Your task to perform on an android device: Go to Google maps Image 0: 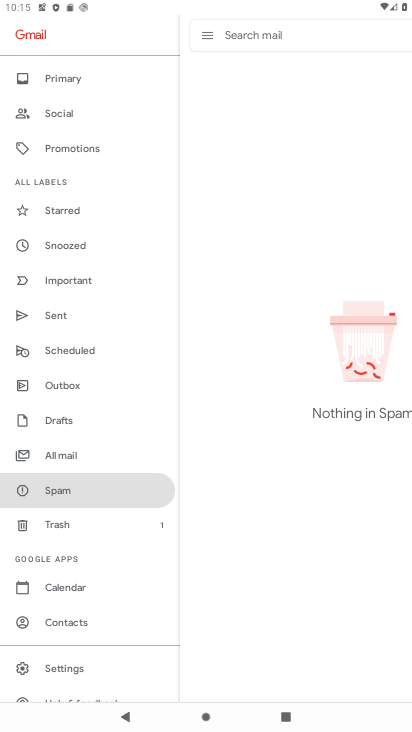
Step 0: press home button
Your task to perform on an android device: Go to Google maps Image 1: 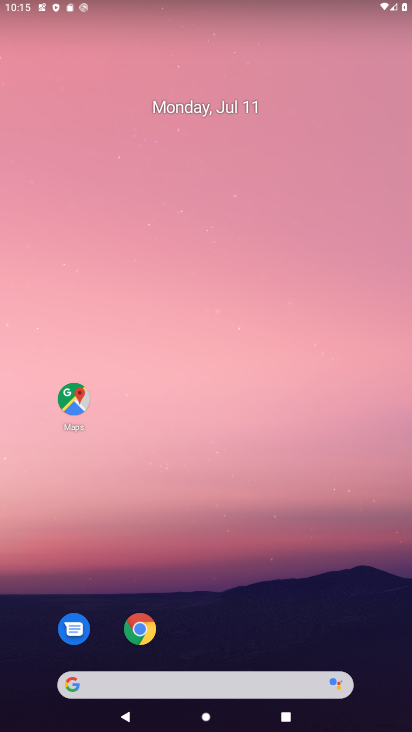
Step 1: click (72, 408)
Your task to perform on an android device: Go to Google maps Image 2: 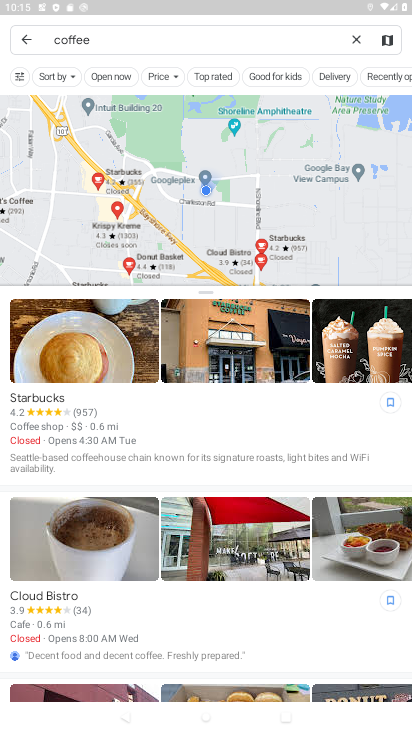
Step 2: task complete